Your task to perform on an android device: all mails in gmail Image 0: 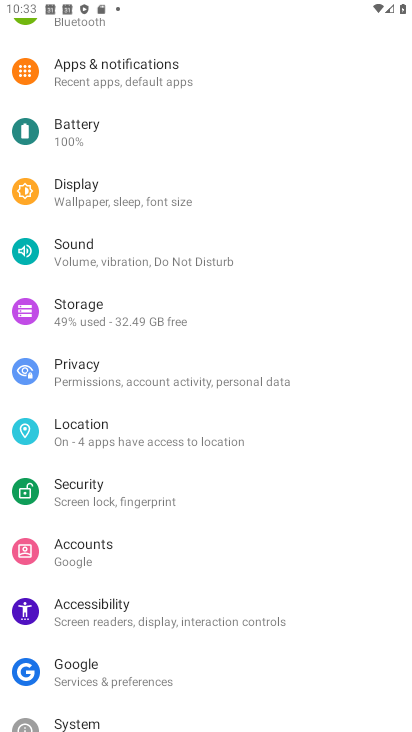
Step 0: press home button
Your task to perform on an android device: all mails in gmail Image 1: 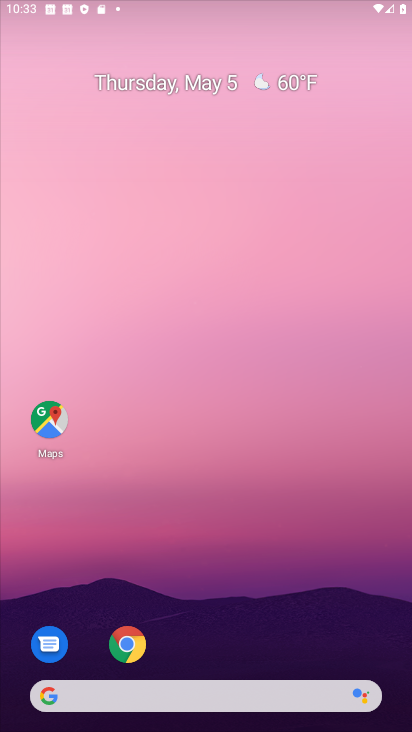
Step 1: drag from (174, 675) to (195, 261)
Your task to perform on an android device: all mails in gmail Image 2: 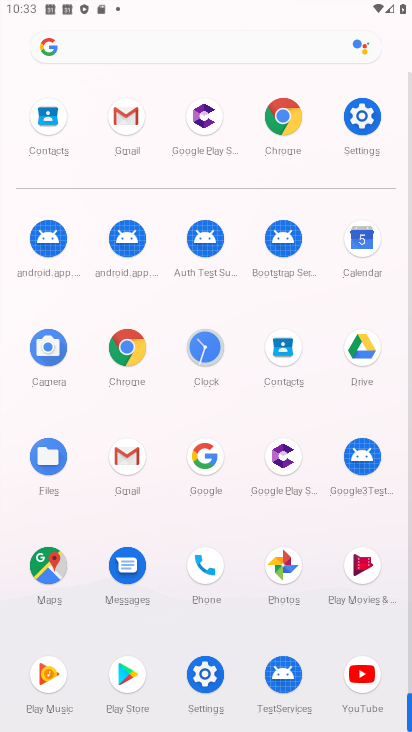
Step 2: click (134, 463)
Your task to perform on an android device: all mails in gmail Image 3: 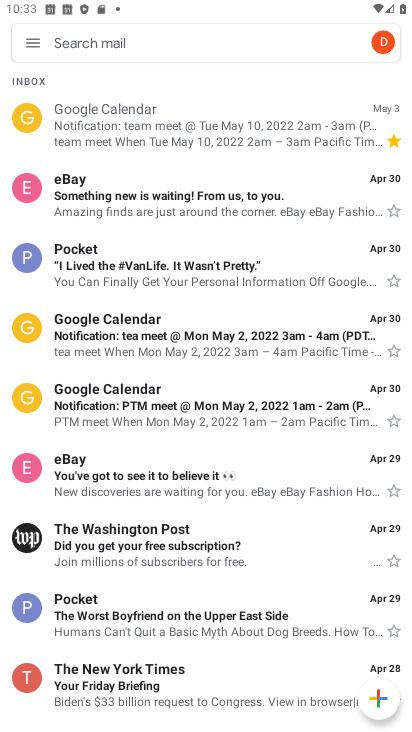
Step 3: click (30, 42)
Your task to perform on an android device: all mails in gmail Image 4: 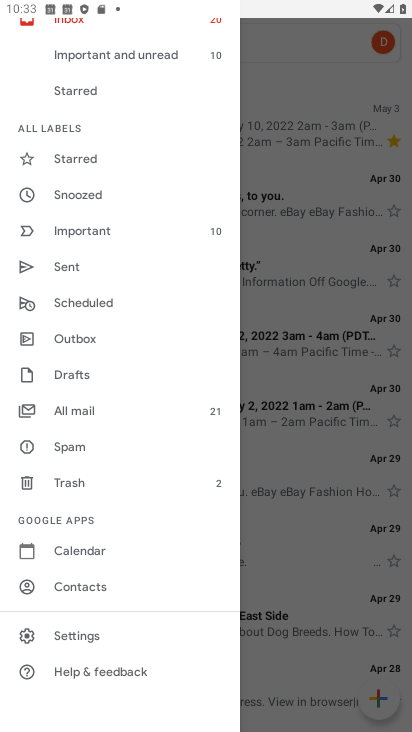
Step 4: click (88, 401)
Your task to perform on an android device: all mails in gmail Image 5: 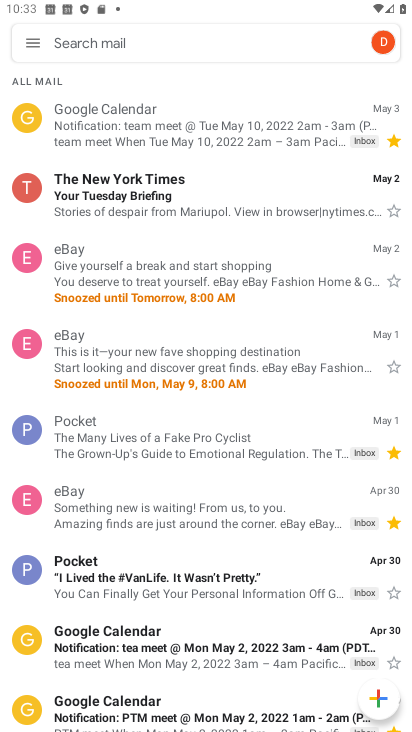
Step 5: click (33, 35)
Your task to perform on an android device: all mails in gmail Image 6: 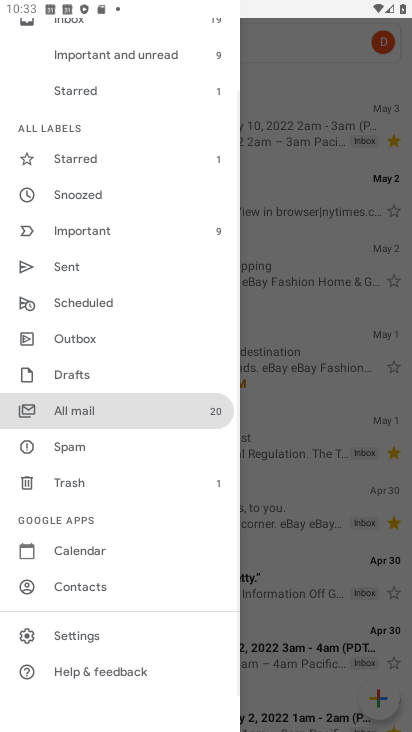
Step 6: click (66, 414)
Your task to perform on an android device: all mails in gmail Image 7: 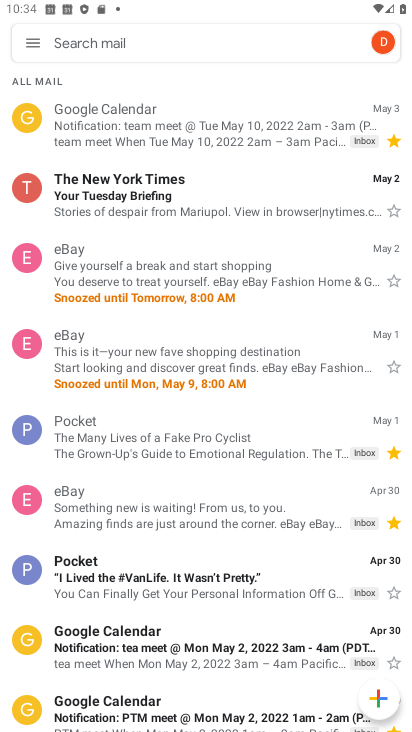
Step 7: click (224, 261)
Your task to perform on an android device: all mails in gmail Image 8: 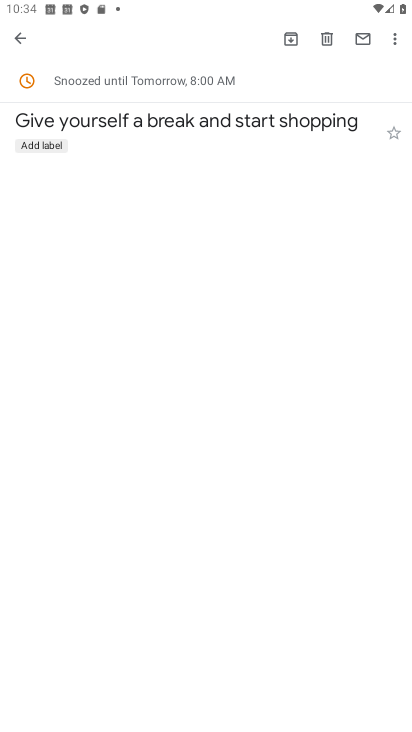
Step 8: click (28, 42)
Your task to perform on an android device: all mails in gmail Image 9: 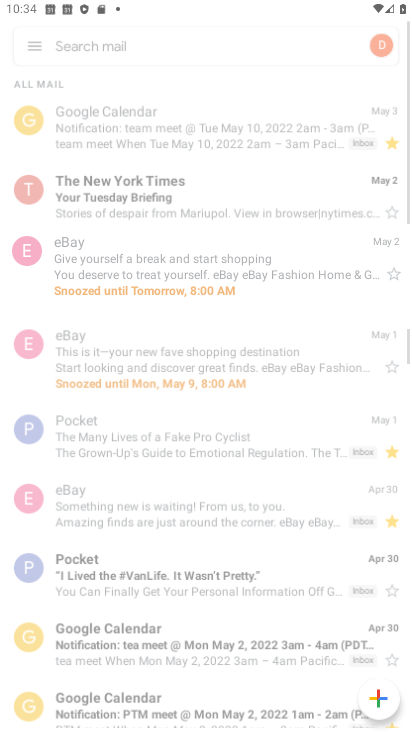
Step 9: click (25, 40)
Your task to perform on an android device: all mails in gmail Image 10: 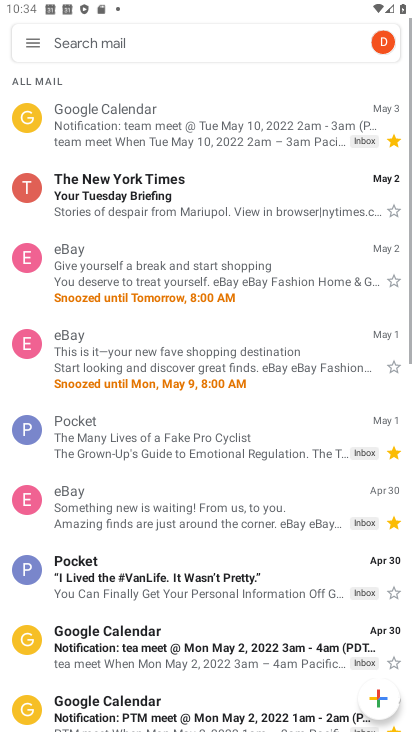
Step 10: click (18, 37)
Your task to perform on an android device: all mails in gmail Image 11: 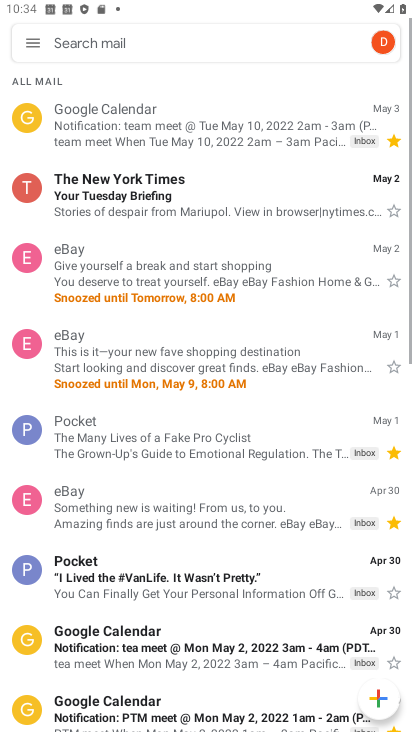
Step 11: task complete